Your task to perform on an android device: Open ESPN.com Image 0: 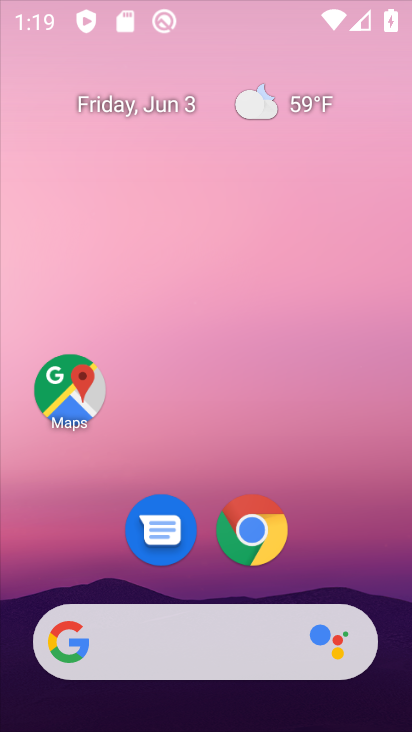
Step 0: drag from (345, 565) to (339, 2)
Your task to perform on an android device: Open ESPN.com Image 1: 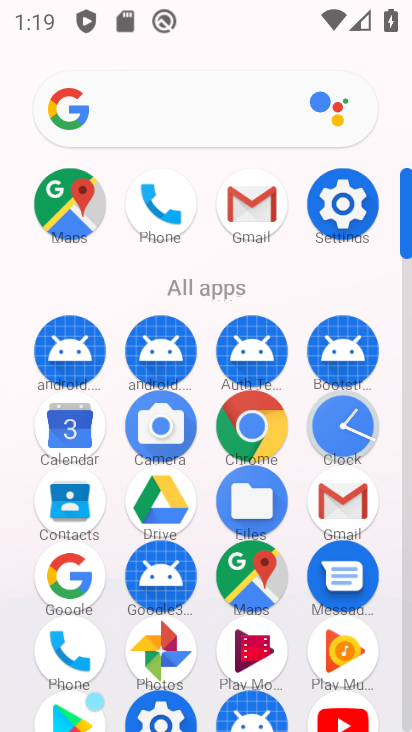
Step 1: click (249, 422)
Your task to perform on an android device: Open ESPN.com Image 2: 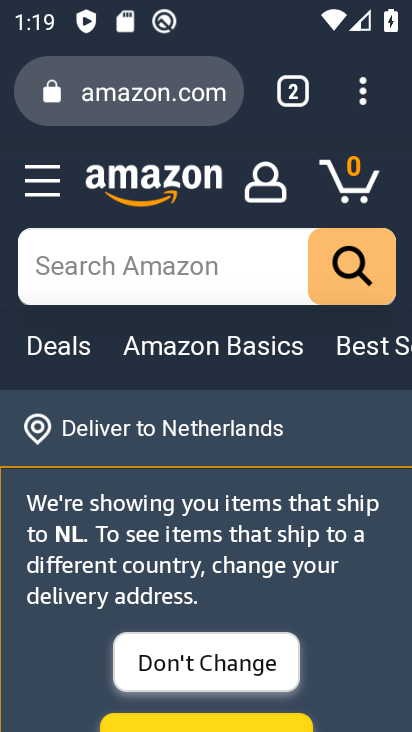
Step 2: click (156, 101)
Your task to perform on an android device: Open ESPN.com Image 3: 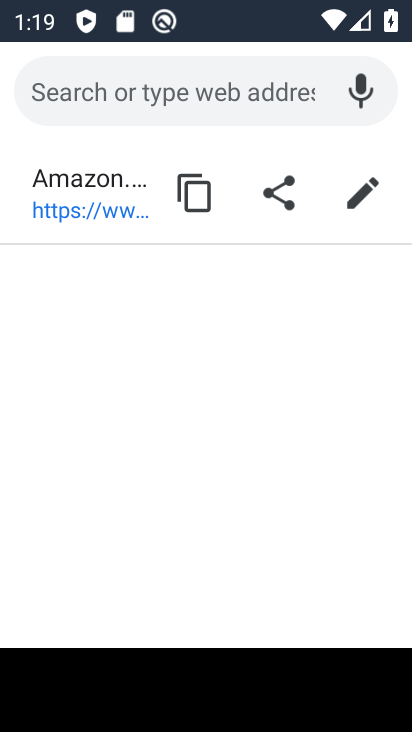
Step 3: type "ESPN.com"
Your task to perform on an android device: Open ESPN.com Image 4: 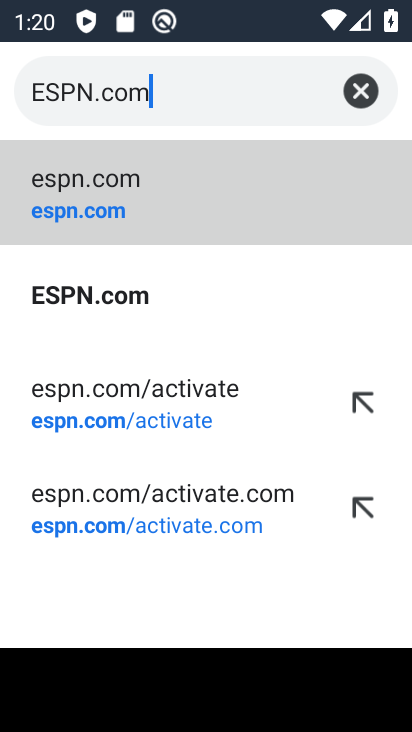
Step 4: click (51, 185)
Your task to perform on an android device: Open ESPN.com Image 5: 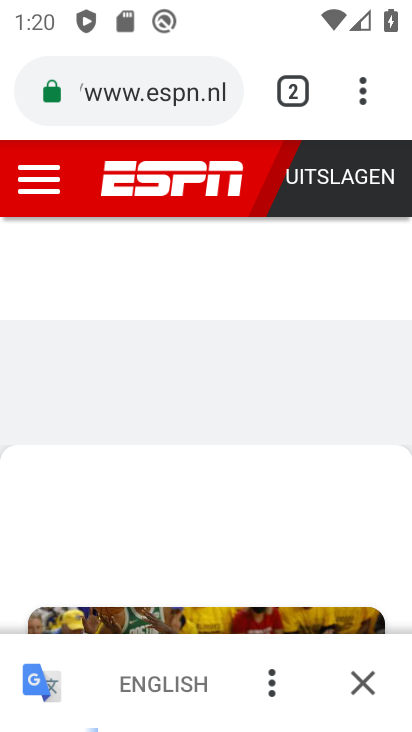
Step 5: task complete